Your task to perform on an android device: Is it going to rain today? Image 0: 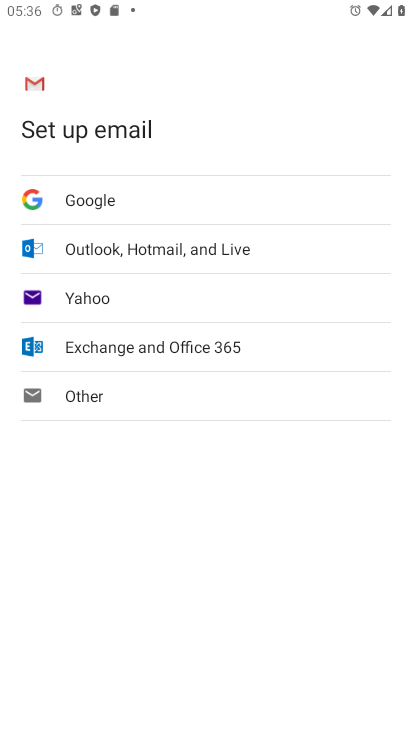
Step 0: press home button
Your task to perform on an android device: Is it going to rain today? Image 1: 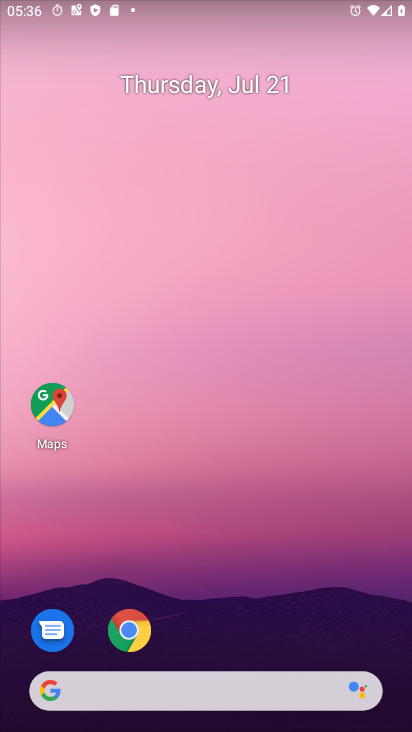
Step 1: drag from (195, 690) to (313, 52)
Your task to perform on an android device: Is it going to rain today? Image 2: 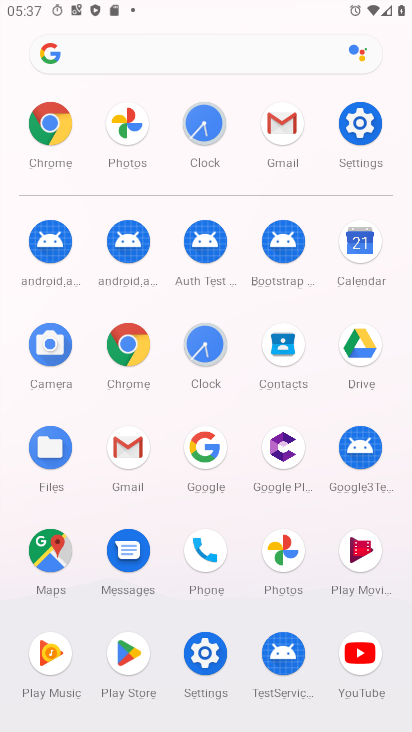
Step 2: click (203, 446)
Your task to perform on an android device: Is it going to rain today? Image 3: 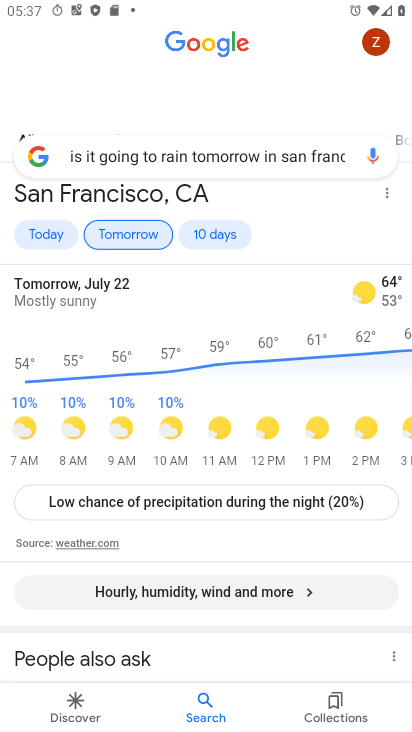
Step 3: click (45, 237)
Your task to perform on an android device: Is it going to rain today? Image 4: 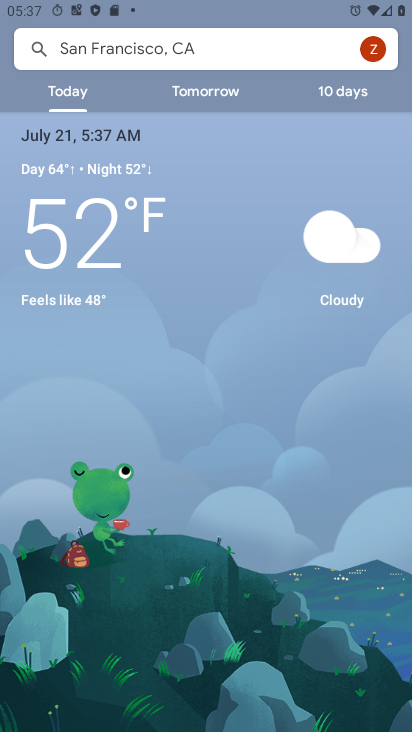
Step 4: task complete